Your task to perform on an android device: Open Amazon Image 0: 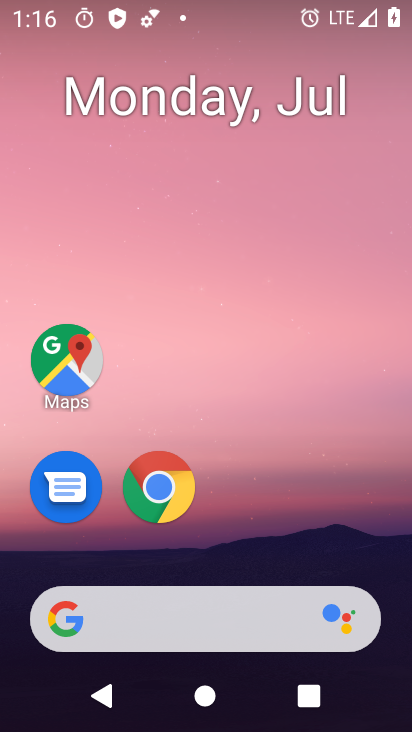
Step 0: press home button
Your task to perform on an android device: Open Amazon Image 1: 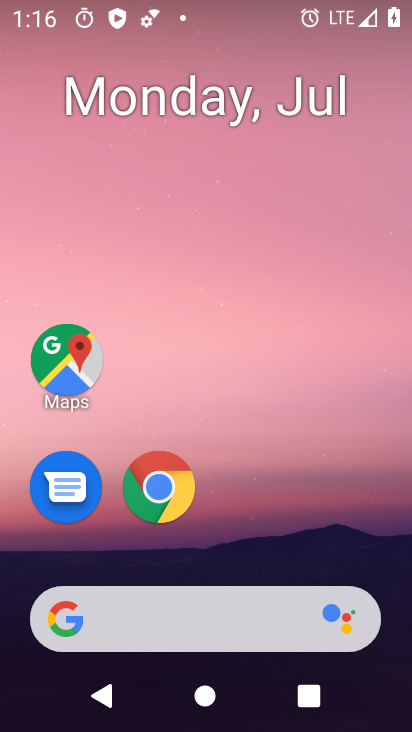
Step 1: click (65, 629)
Your task to perform on an android device: Open Amazon Image 2: 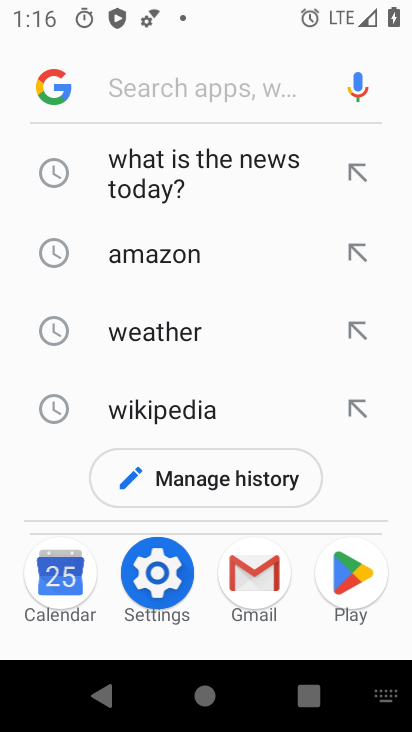
Step 2: type " Amazon"
Your task to perform on an android device: Open Amazon Image 3: 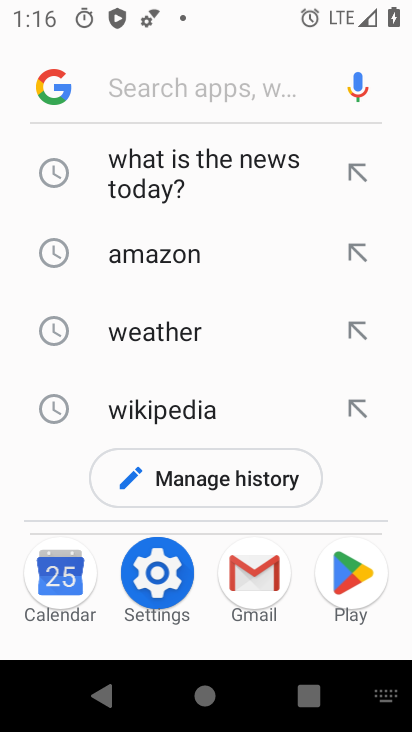
Step 3: click (170, 80)
Your task to perform on an android device: Open Amazon Image 4: 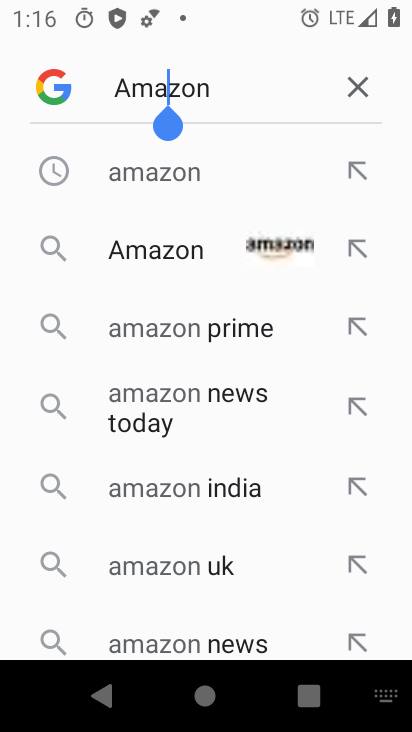
Step 4: click (303, 241)
Your task to perform on an android device: Open Amazon Image 5: 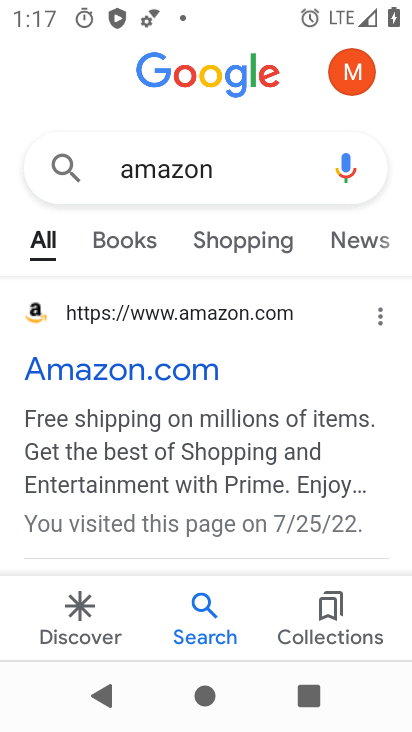
Step 5: click (130, 369)
Your task to perform on an android device: Open Amazon Image 6: 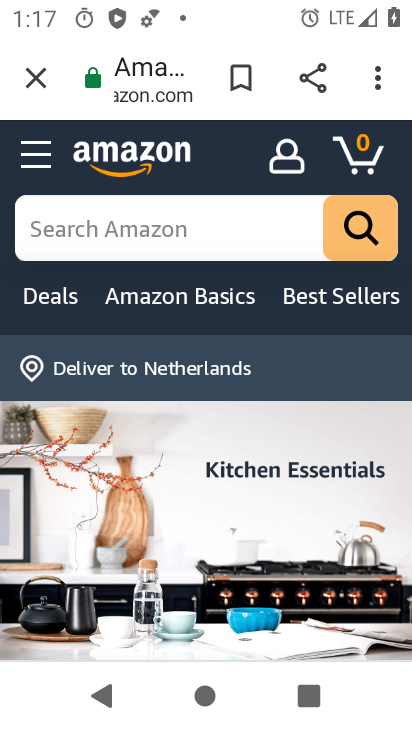
Step 6: task complete